Your task to perform on an android device: Open battery settings Image 0: 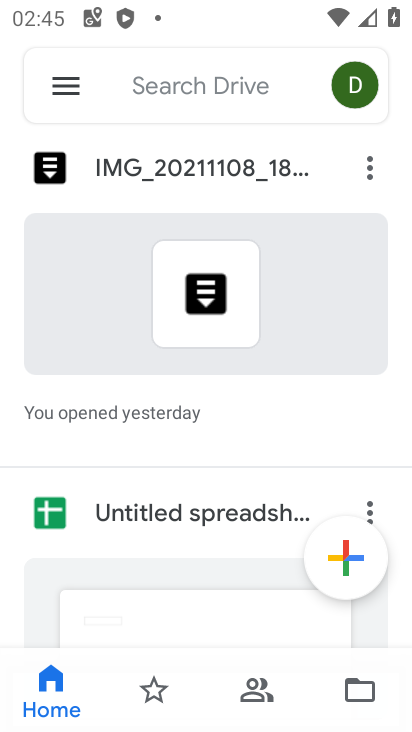
Step 0: press home button
Your task to perform on an android device: Open battery settings Image 1: 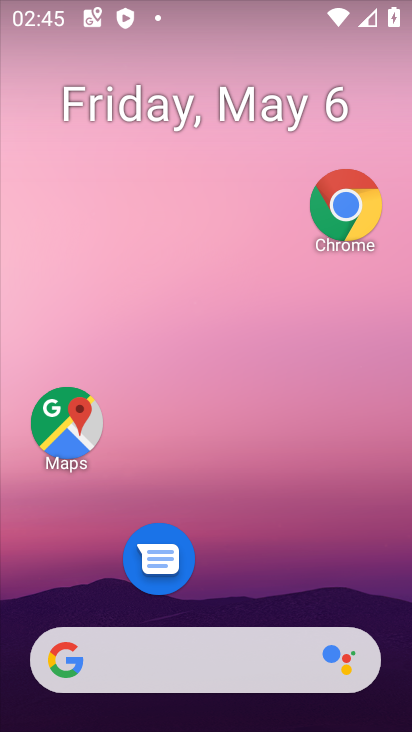
Step 1: drag from (152, 676) to (272, 106)
Your task to perform on an android device: Open battery settings Image 2: 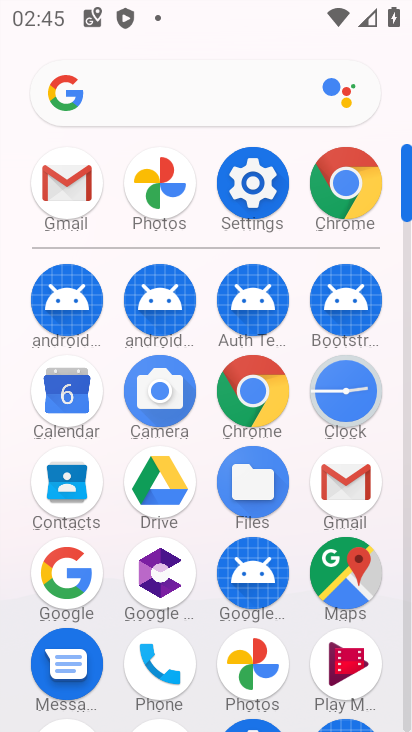
Step 2: click (246, 201)
Your task to perform on an android device: Open battery settings Image 3: 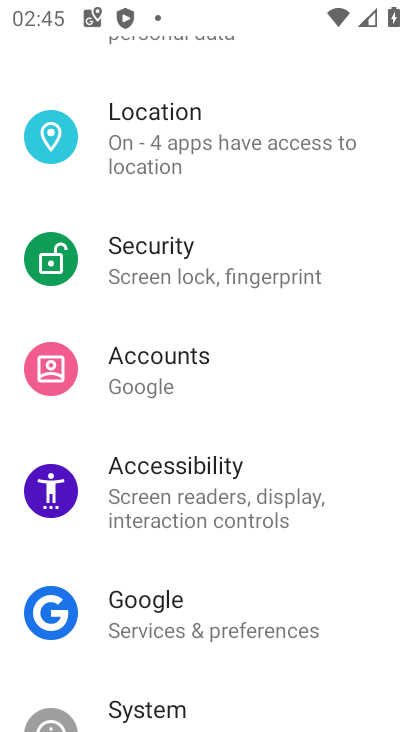
Step 3: drag from (260, 215) to (185, 627)
Your task to perform on an android device: Open battery settings Image 4: 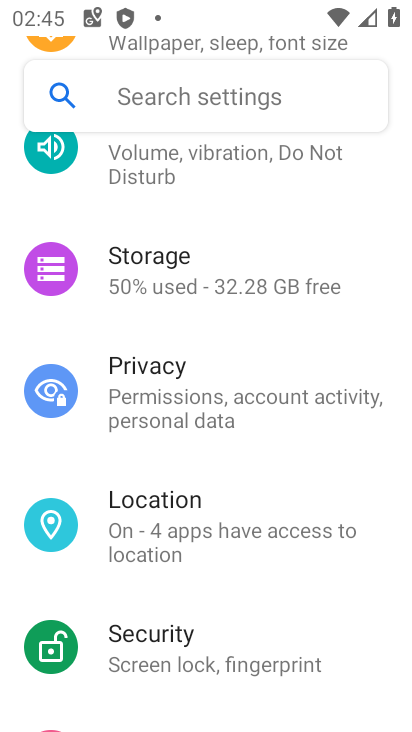
Step 4: drag from (257, 227) to (172, 605)
Your task to perform on an android device: Open battery settings Image 5: 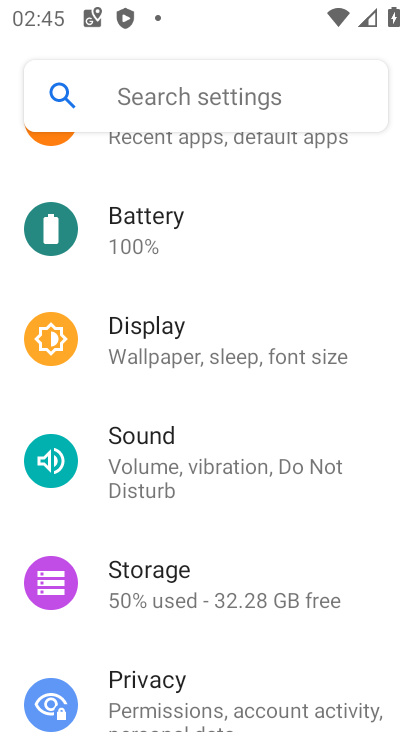
Step 5: click (163, 238)
Your task to perform on an android device: Open battery settings Image 6: 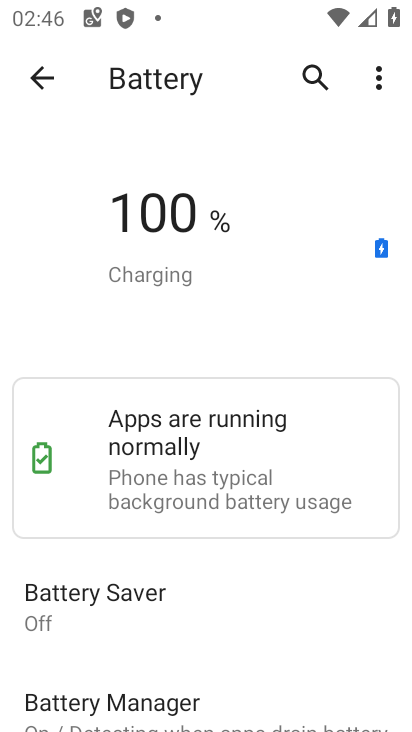
Step 6: task complete